Your task to perform on an android device: turn off notifications settings in the gmail app Image 0: 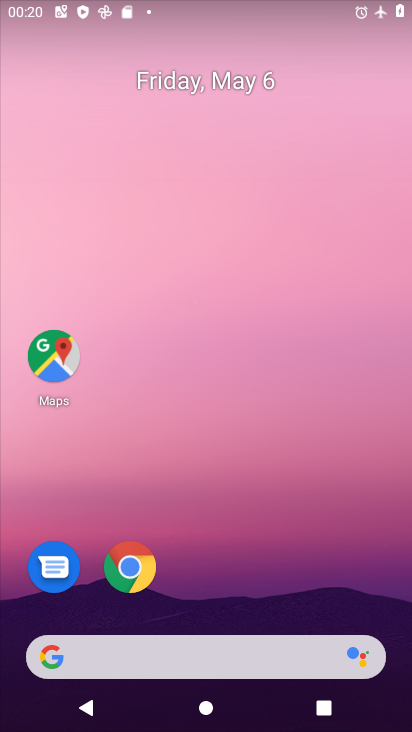
Step 0: drag from (265, 541) to (214, 141)
Your task to perform on an android device: turn off notifications settings in the gmail app Image 1: 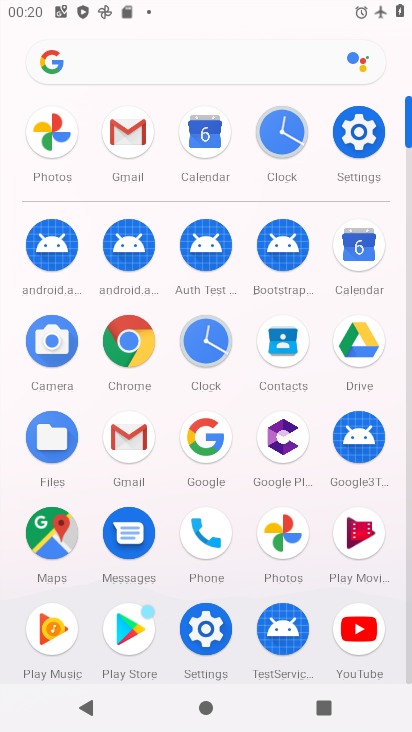
Step 1: click (132, 444)
Your task to perform on an android device: turn off notifications settings in the gmail app Image 2: 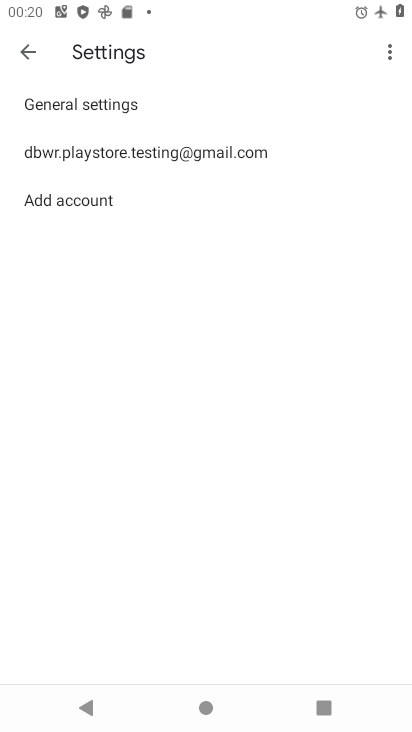
Step 2: click (114, 145)
Your task to perform on an android device: turn off notifications settings in the gmail app Image 3: 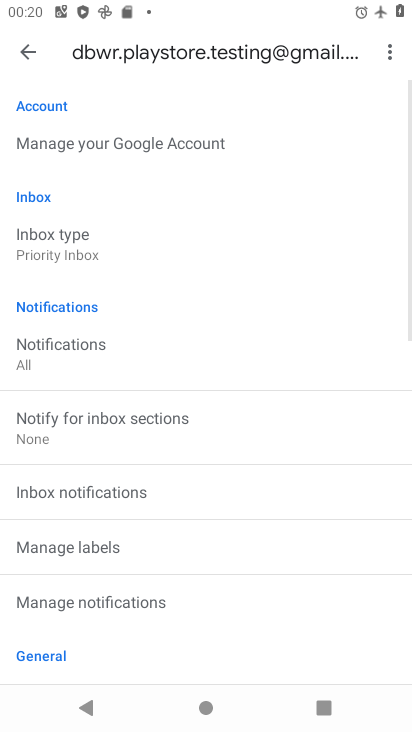
Step 3: drag from (156, 637) to (182, 372)
Your task to perform on an android device: turn off notifications settings in the gmail app Image 4: 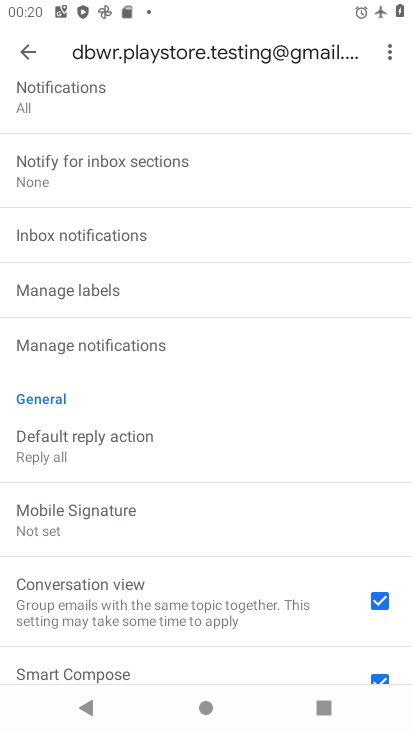
Step 4: click (128, 341)
Your task to perform on an android device: turn off notifications settings in the gmail app Image 5: 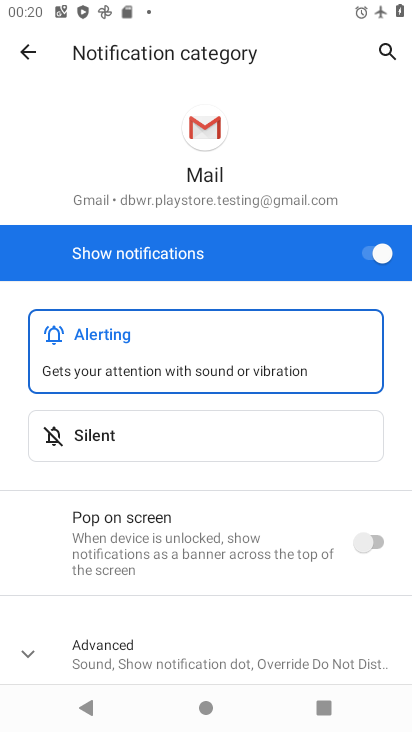
Step 5: click (364, 254)
Your task to perform on an android device: turn off notifications settings in the gmail app Image 6: 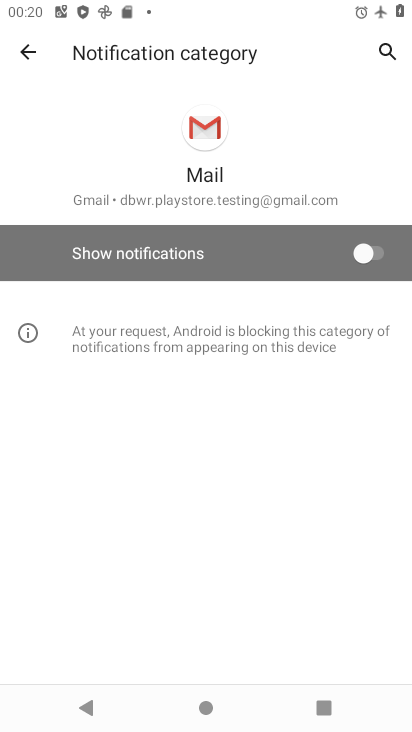
Step 6: task complete